Your task to perform on an android device: show emergency info Image 0: 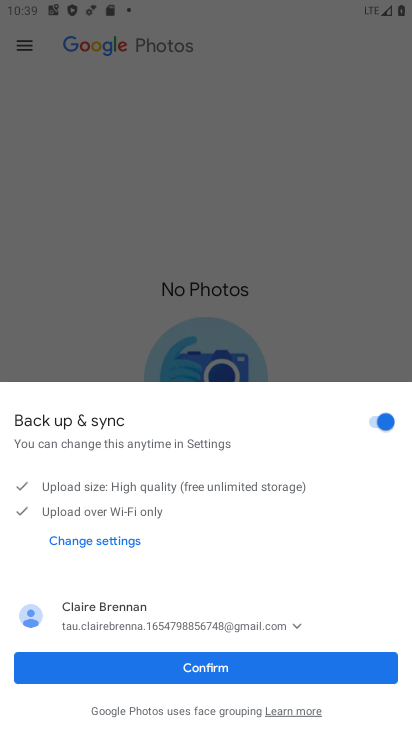
Step 0: press home button
Your task to perform on an android device: show emergency info Image 1: 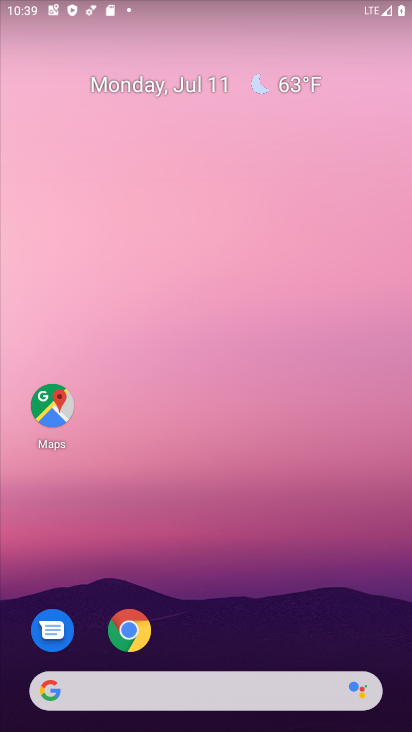
Step 1: drag from (381, 639) to (349, 12)
Your task to perform on an android device: show emergency info Image 2: 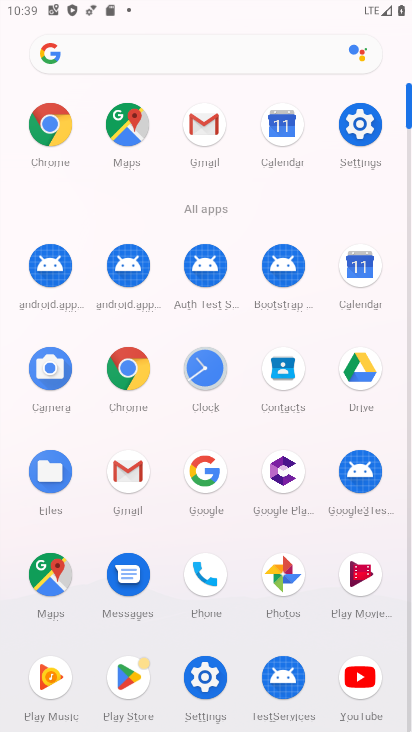
Step 2: click (205, 676)
Your task to perform on an android device: show emergency info Image 3: 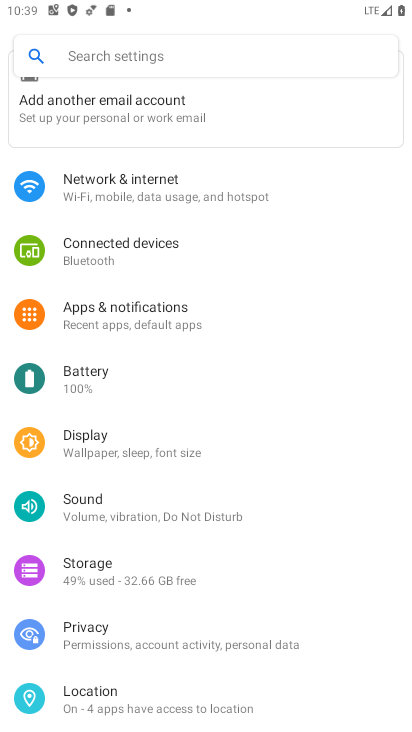
Step 3: drag from (351, 678) to (327, 265)
Your task to perform on an android device: show emergency info Image 4: 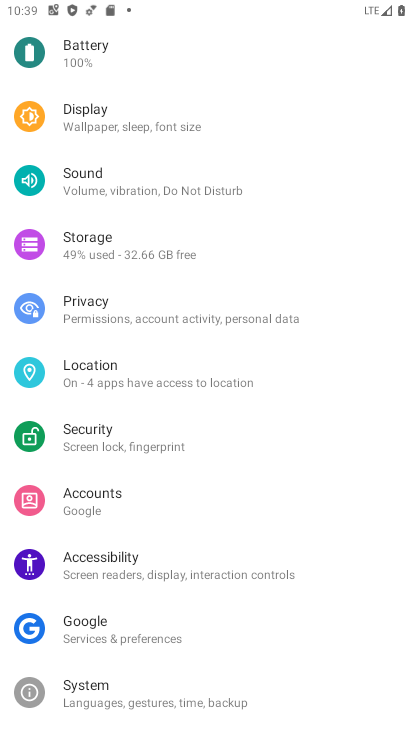
Step 4: drag from (311, 624) to (327, 313)
Your task to perform on an android device: show emergency info Image 5: 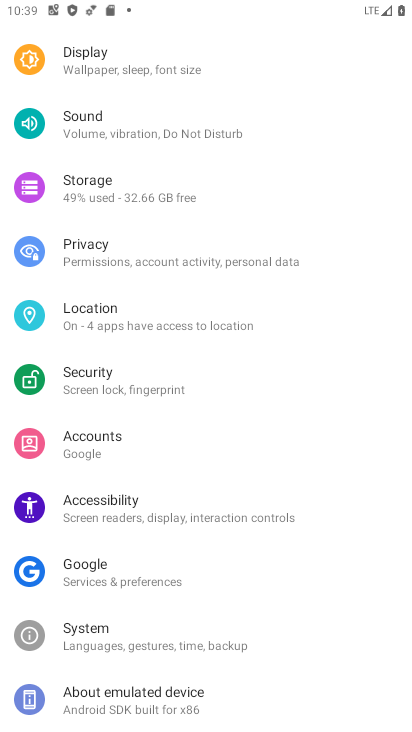
Step 5: click (100, 691)
Your task to perform on an android device: show emergency info Image 6: 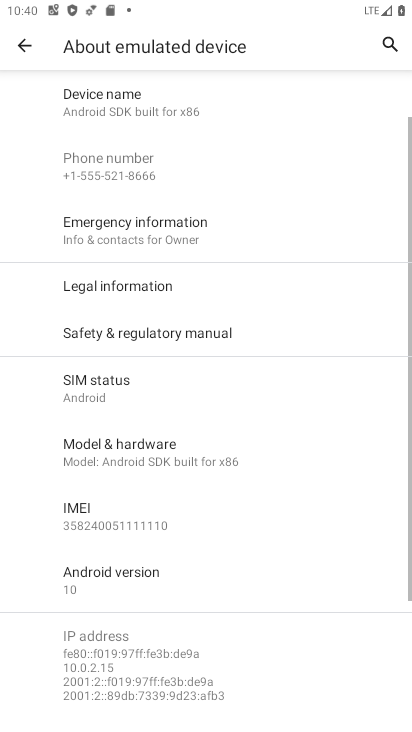
Step 6: click (117, 222)
Your task to perform on an android device: show emergency info Image 7: 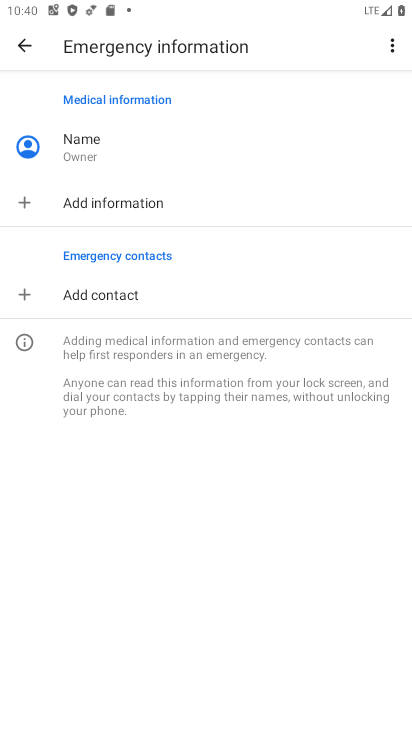
Step 7: task complete